Your task to perform on an android device: Open the stopwatch Image 0: 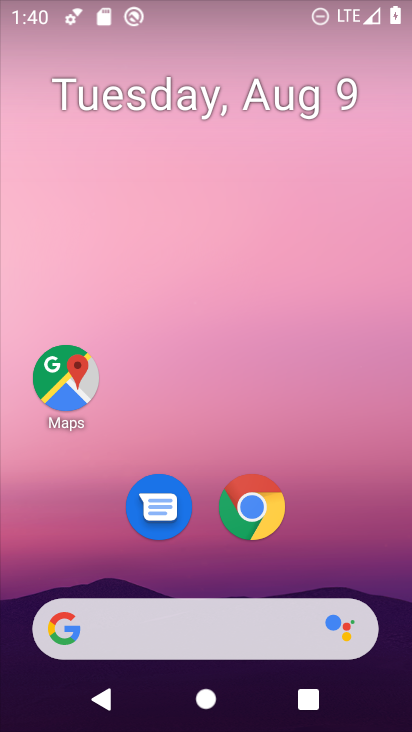
Step 0: drag from (205, 377) to (224, 40)
Your task to perform on an android device: Open the stopwatch Image 1: 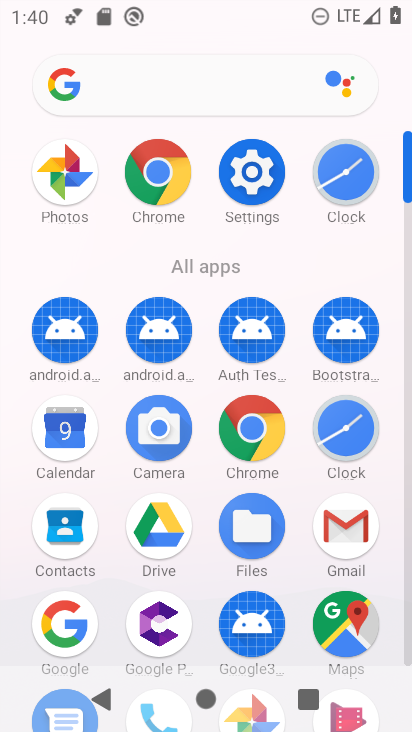
Step 1: click (340, 179)
Your task to perform on an android device: Open the stopwatch Image 2: 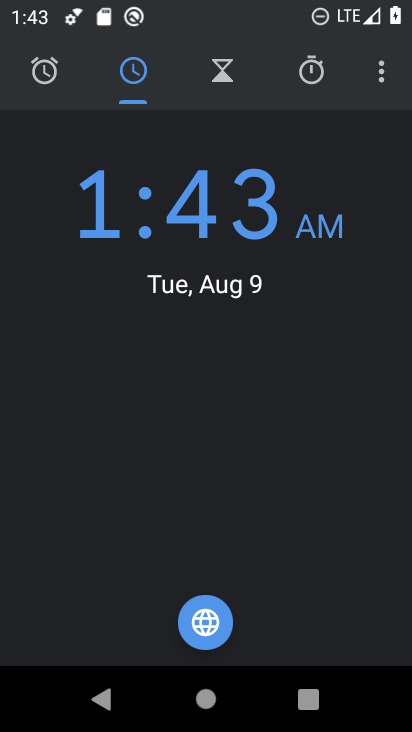
Step 2: click (313, 67)
Your task to perform on an android device: Open the stopwatch Image 3: 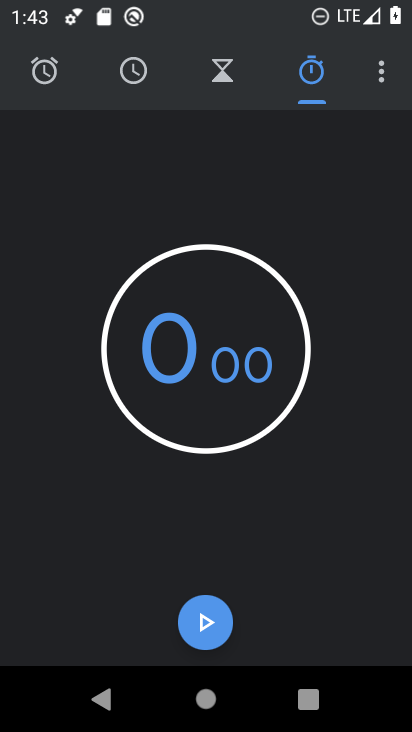
Step 3: click (211, 338)
Your task to perform on an android device: Open the stopwatch Image 4: 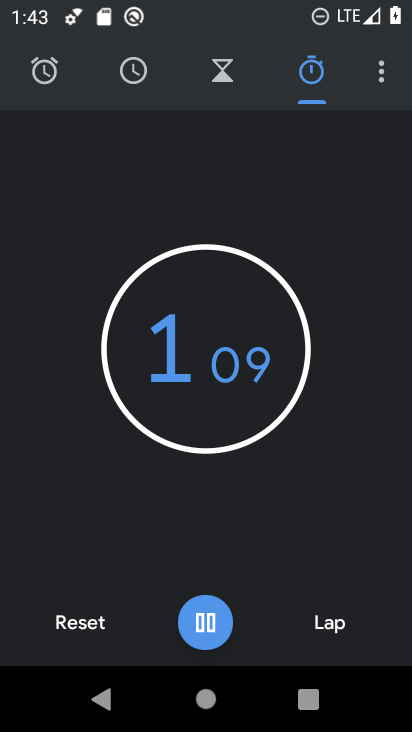
Step 4: task complete